Your task to perform on an android device: change text size in settings app Image 0: 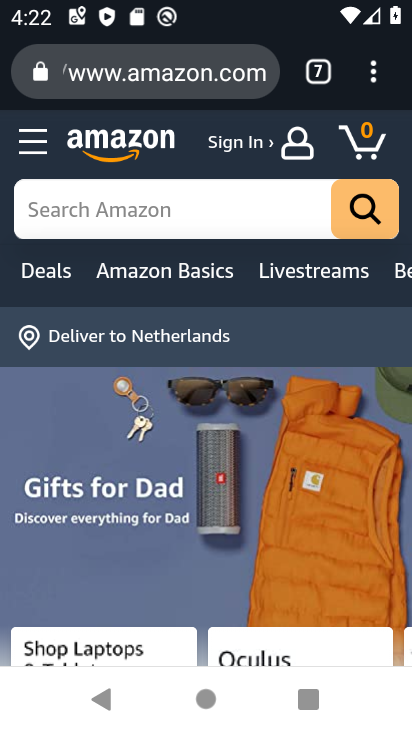
Step 0: press home button
Your task to perform on an android device: change text size in settings app Image 1: 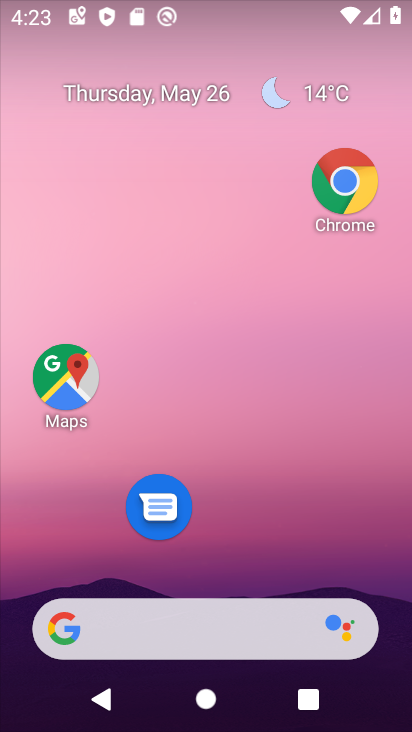
Step 1: drag from (245, 567) to (334, 172)
Your task to perform on an android device: change text size in settings app Image 2: 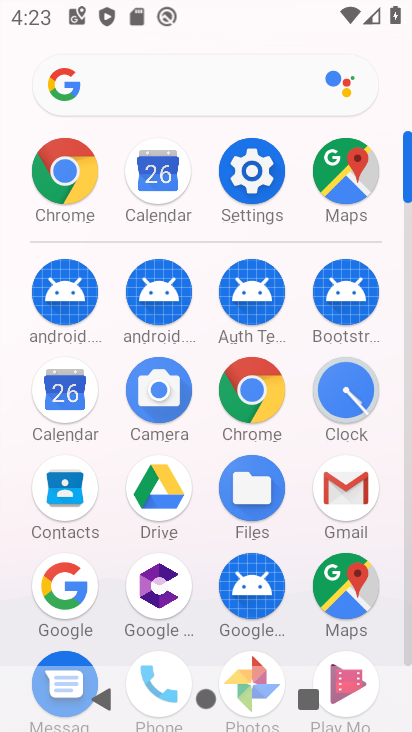
Step 2: click (257, 182)
Your task to perform on an android device: change text size in settings app Image 3: 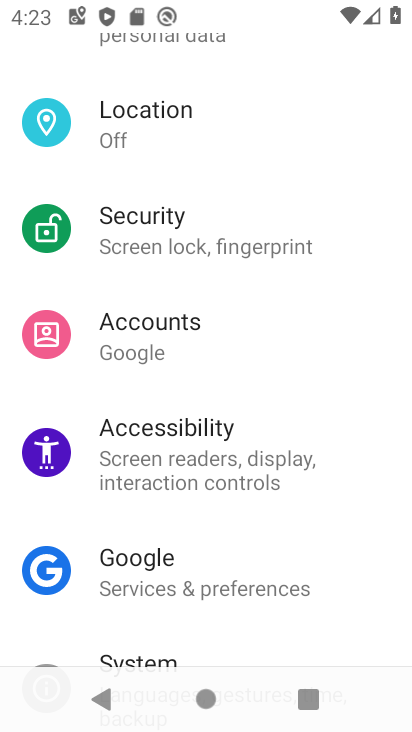
Step 3: drag from (259, 549) to (203, 518)
Your task to perform on an android device: change text size in settings app Image 4: 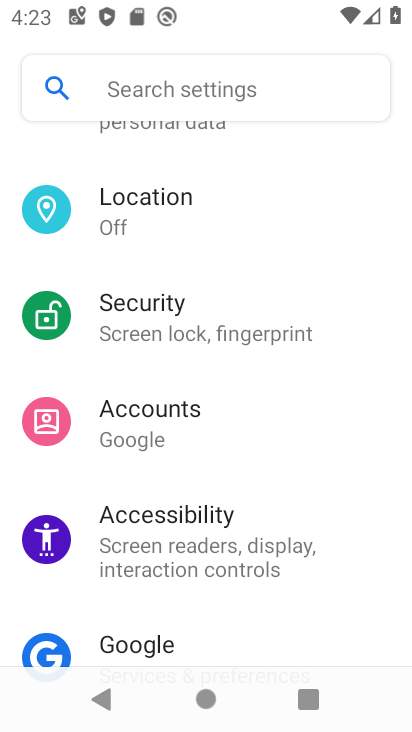
Step 4: drag from (263, 205) to (180, 466)
Your task to perform on an android device: change text size in settings app Image 5: 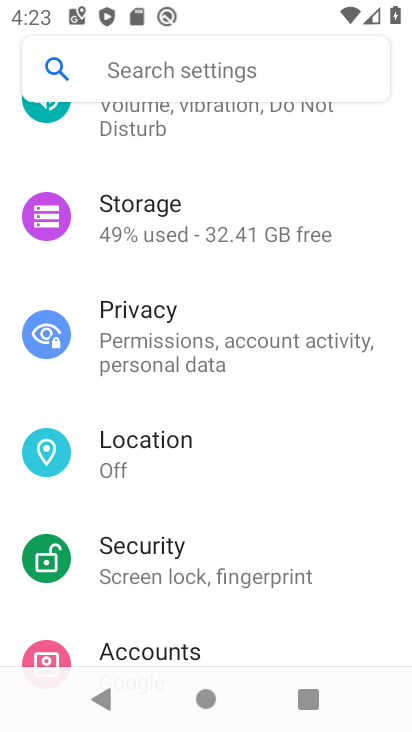
Step 5: drag from (255, 223) to (139, 527)
Your task to perform on an android device: change text size in settings app Image 6: 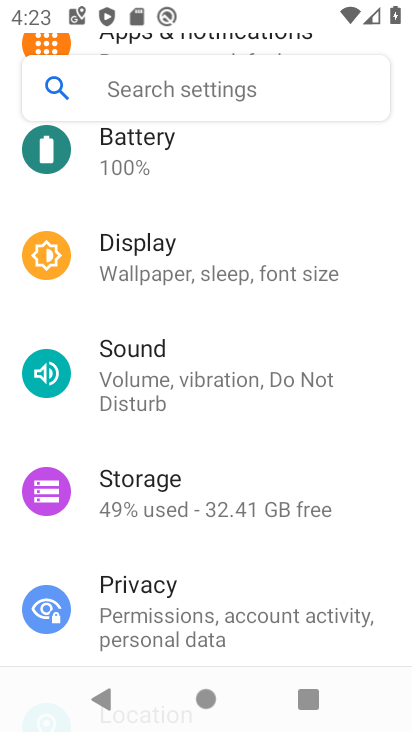
Step 6: click (156, 255)
Your task to perform on an android device: change text size in settings app Image 7: 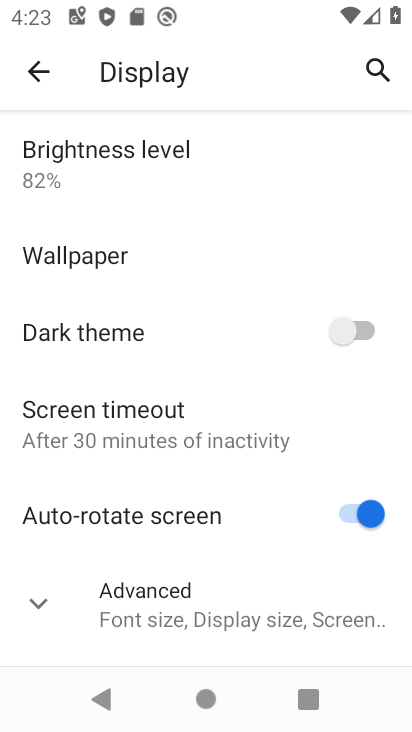
Step 7: click (179, 625)
Your task to perform on an android device: change text size in settings app Image 8: 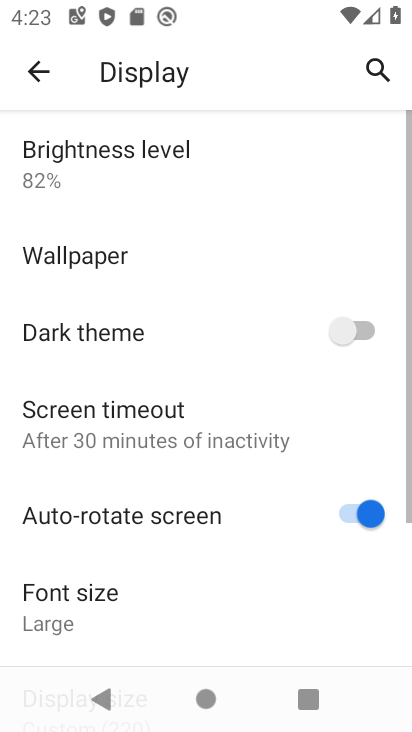
Step 8: drag from (179, 620) to (223, 306)
Your task to perform on an android device: change text size in settings app Image 9: 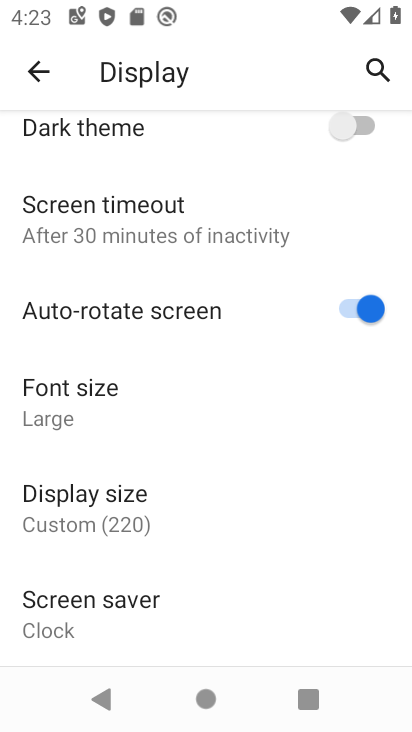
Step 9: click (56, 415)
Your task to perform on an android device: change text size in settings app Image 10: 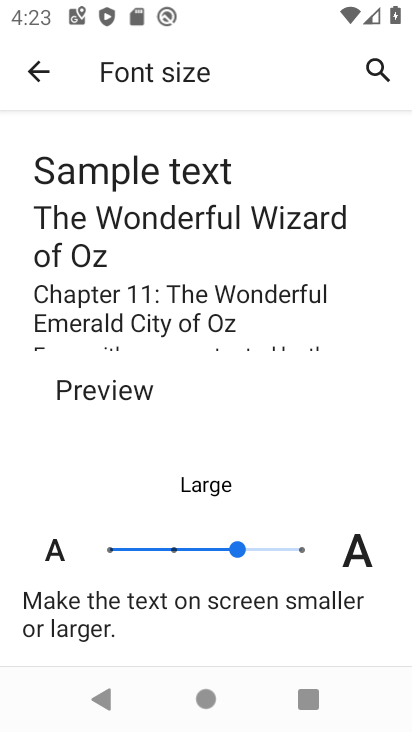
Step 10: click (178, 544)
Your task to perform on an android device: change text size in settings app Image 11: 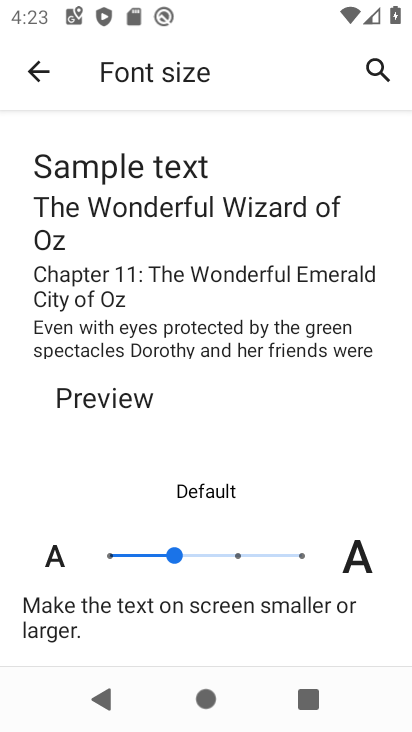
Step 11: task complete